Your task to perform on an android device: What's the weather? Image 0: 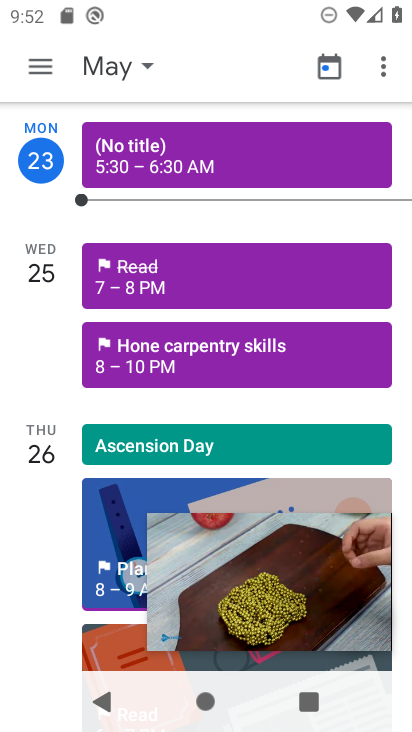
Step 0: press home button
Your task to perform on an android device: What's the weather? Image 1: 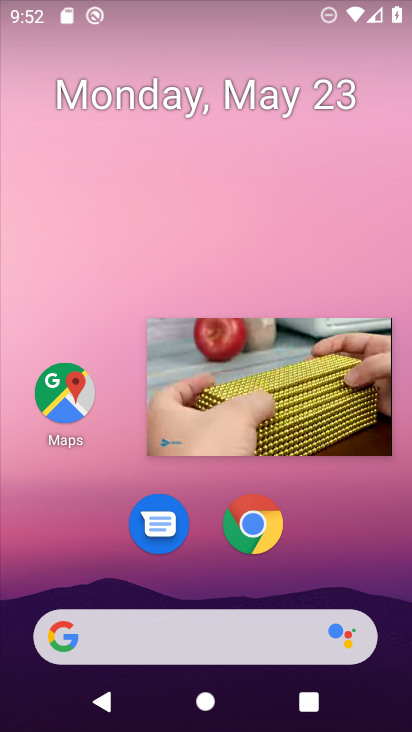
Step 1: drag from (277, 370) to (120, 716)
Your task to perform on an android device: What's the weather? Image 2: 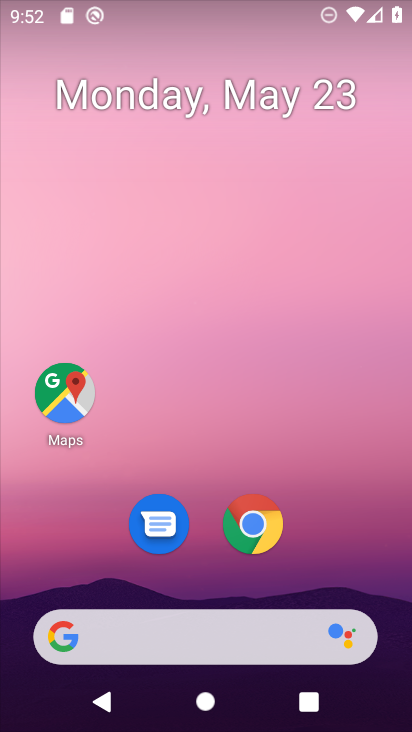
Step 2: click (250, 641)
Your task to perform on an android device: What's the weather? Image 3: 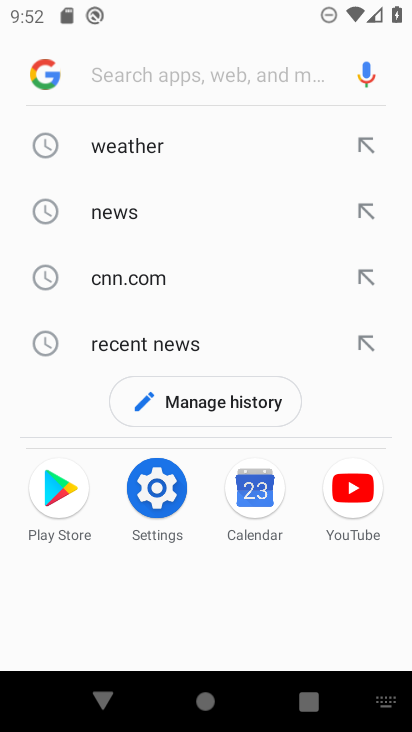
Step 3: click (122, 149)
Your task to perform on an android device: What's the weather? Image 4: 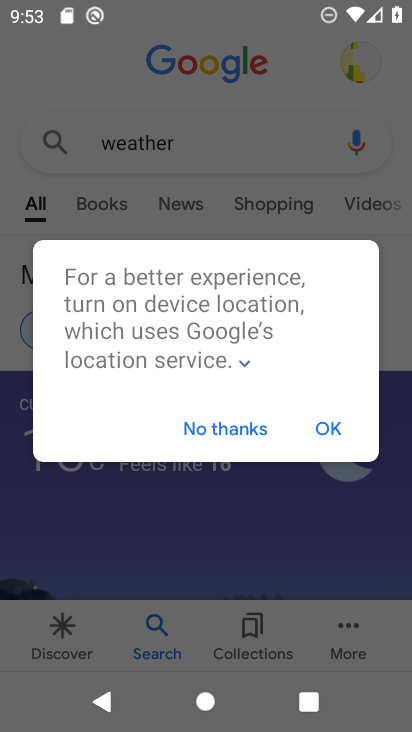
Step 4: click (233, 420)
Your task to perform on an android device: What's the weather? Image 5: 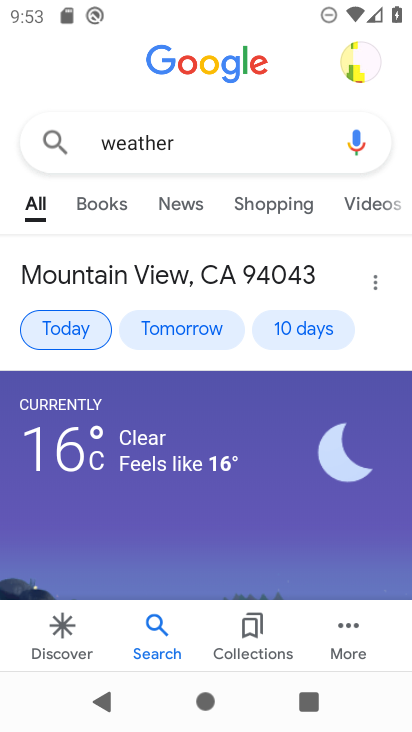
Step 5: click (75, 322)
Your task to perform on an android device: What's the weather? Image 6: 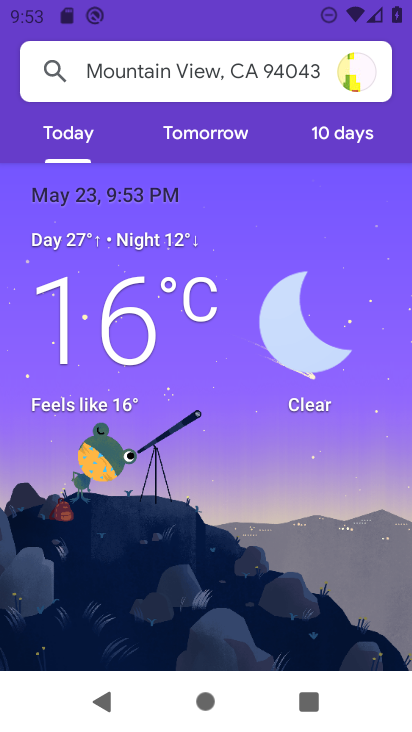
Step 6: task complete